Your task to perform on an android device: Open Reddit.com Image 0: 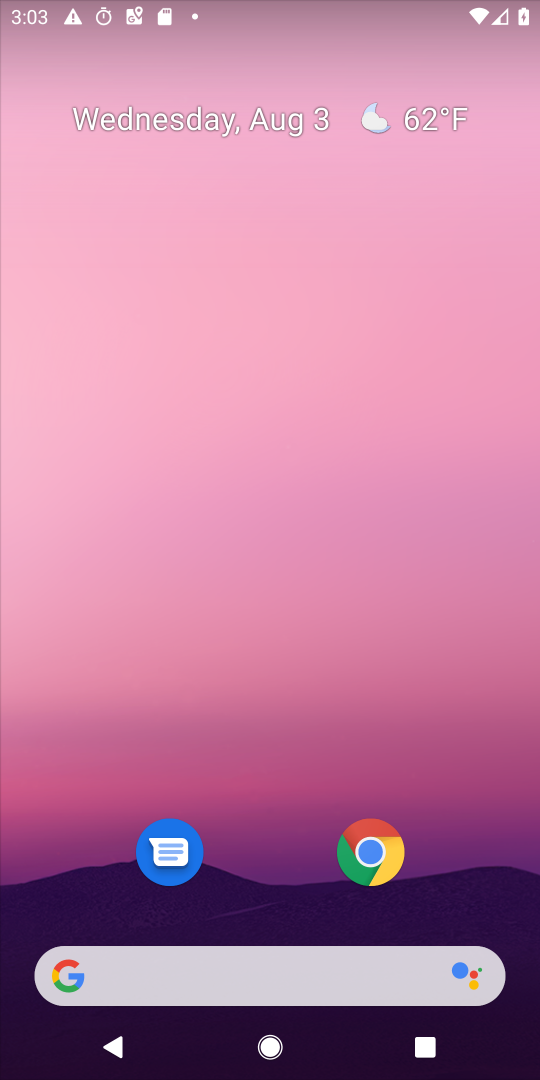
Step 0: drag from (517, 919) to (280, 47)
Your task to perform on an android device: Open Reddit.com Image 1: 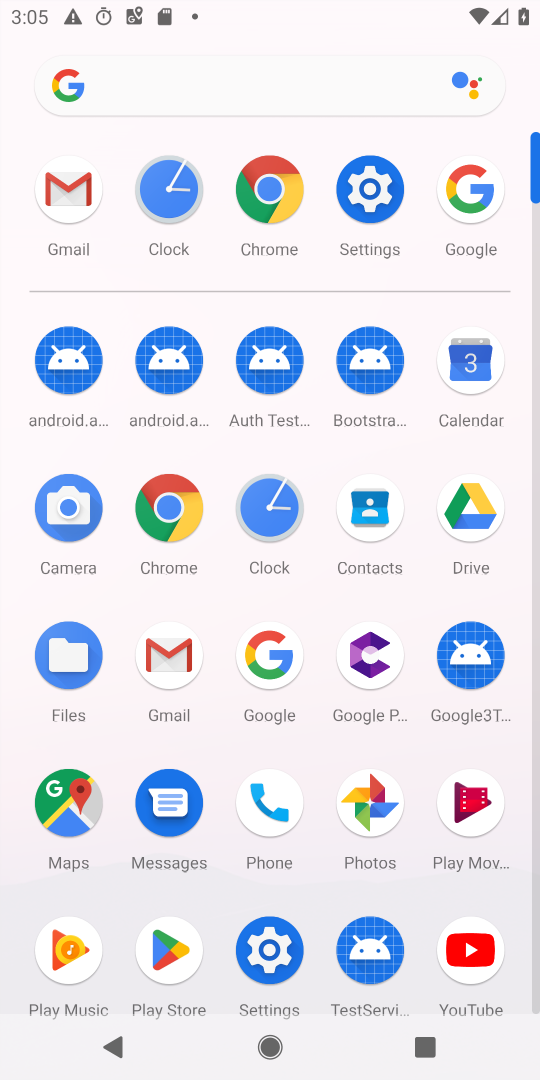
Step 1: click (263, 674)
Your task to perform on an android device: Open Reddit.com Image 2: 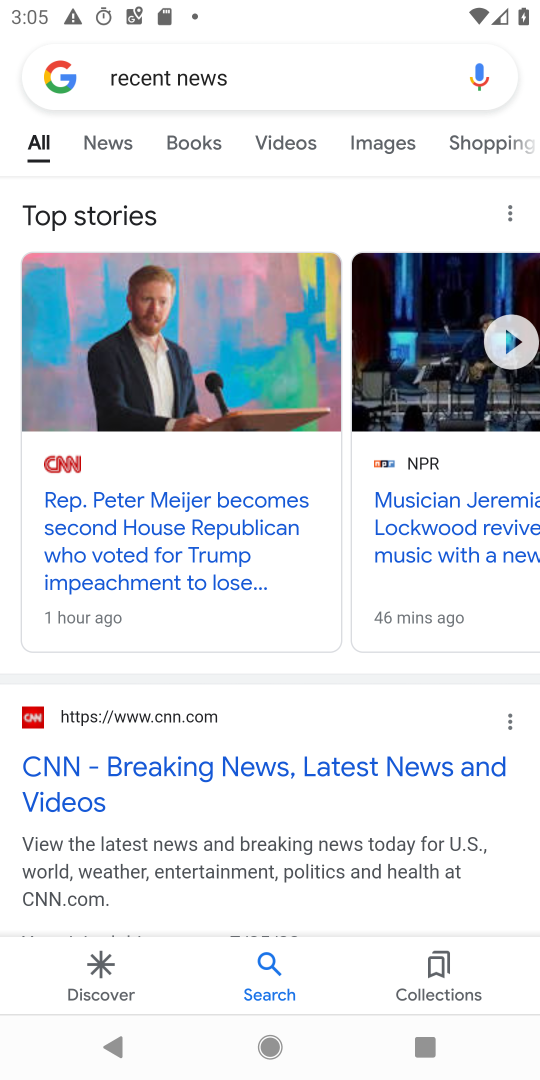
Step 2: press back button
Your task to perform on an android device: Open Reddit.com Image 3: 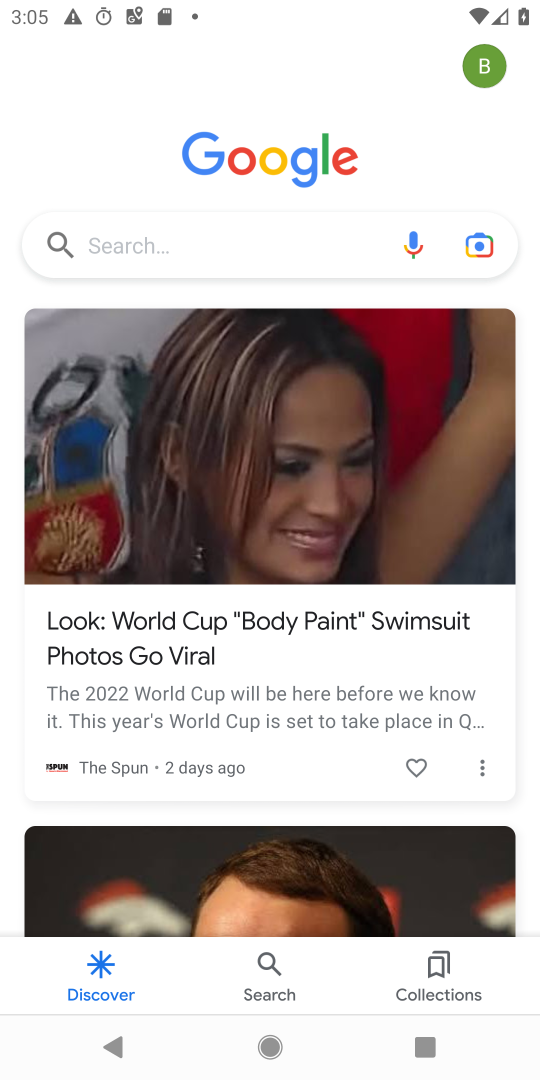
Step 3: click (129, 231)
Your task to perform on an android device: Open Reddit.com Image 4: 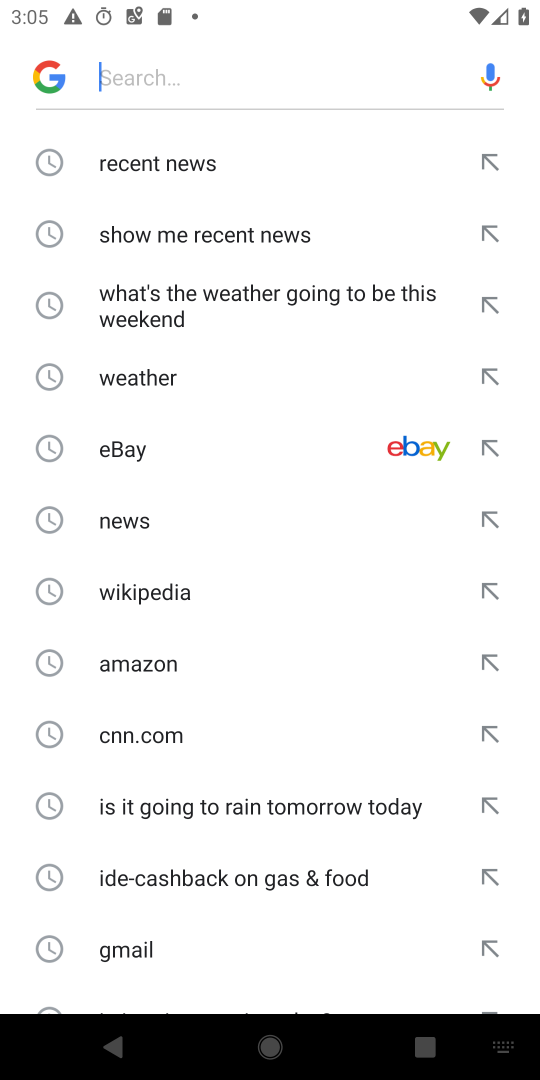
Step 4: type "Reddit.com"
Your task to perform on an android device: Open Reddit.com Image 5: 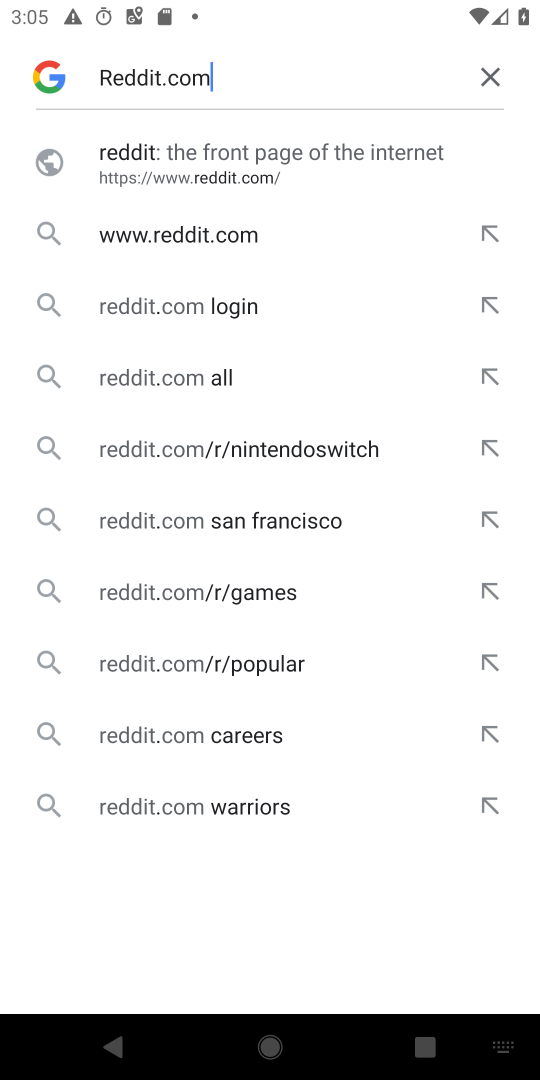
Step 5: click (181, 159)
Your task to perform on an android device: Open Reddit.com Image 6: 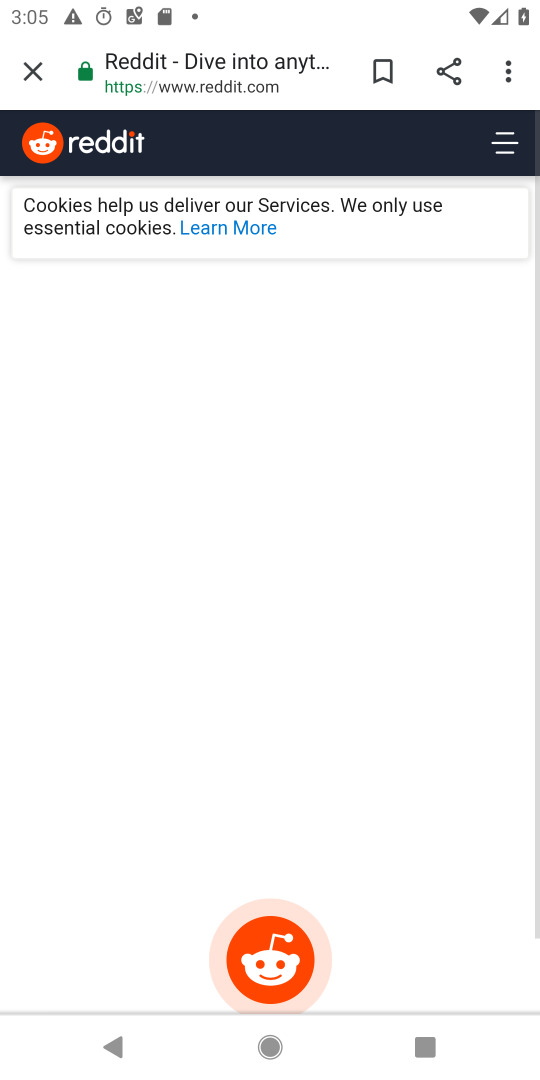
Step 6: task complete